Your task to perform on an android device: turn on bluetooth scan Image 0: 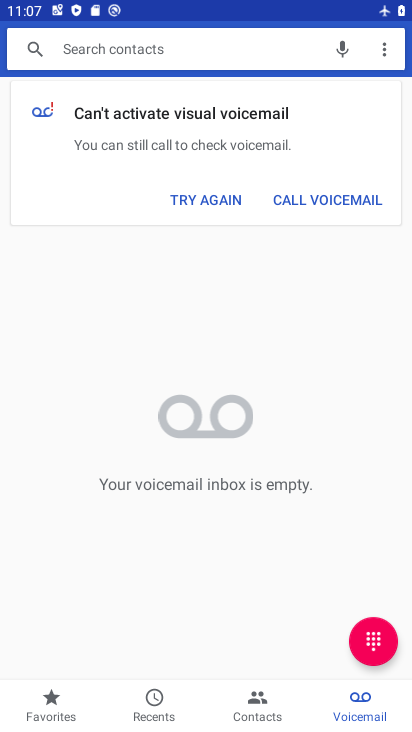
Step 0: press home button
Your task to perform on an android device: turn on bluetooth scan Image 1: 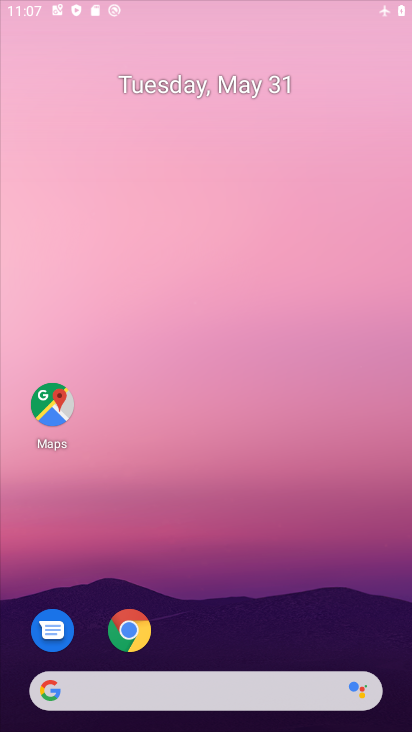
Step 1: drag from (177, 578) to (206, 200)
Your task to perform on an android device: turn on bluetooth scan Image 2: 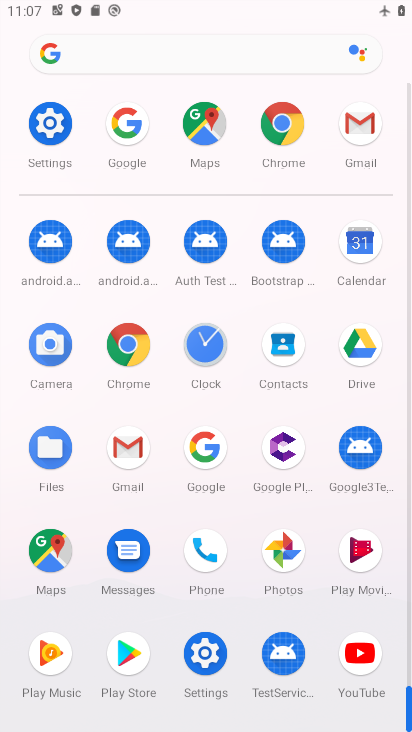
Step 2: click (46, 149)
Your task to perform on an android device: turn on bluetooth scan Image 3: 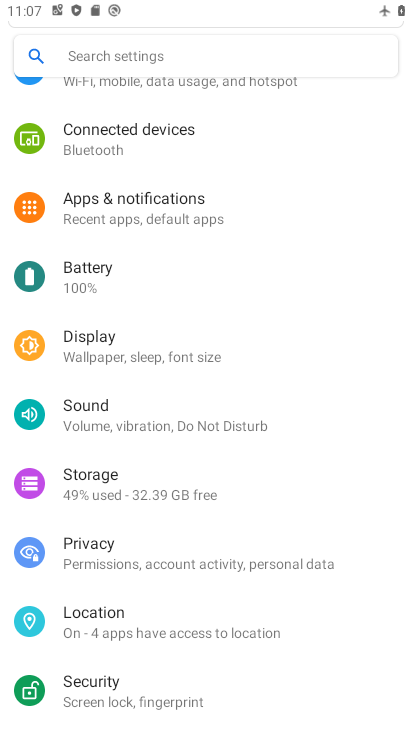
Step 3: drag from (213, 346) to (197, 614)
Your task to perform on an android device: turn on bluetooth scan Image 4: 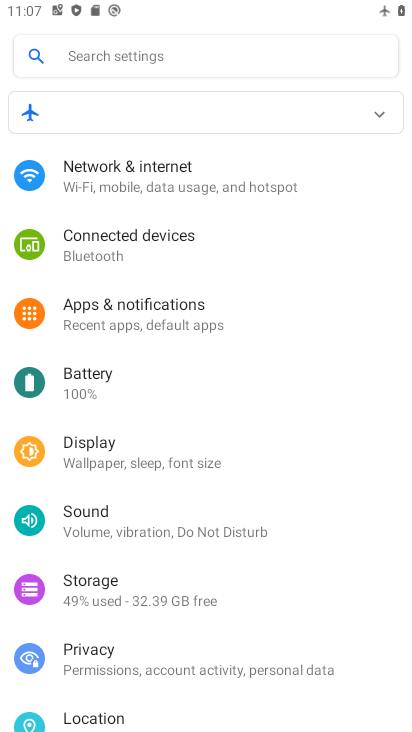
Step 4: click (185, 250)
Your task to perform on an android device: turn on bluetooth scan Image 5: 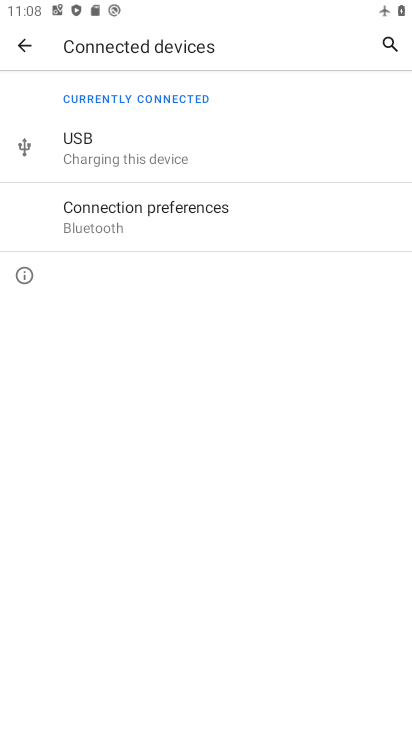
Step 5: click (225, 214)
Your task to perform on an android device: turn on bluetooth scan Image 6: 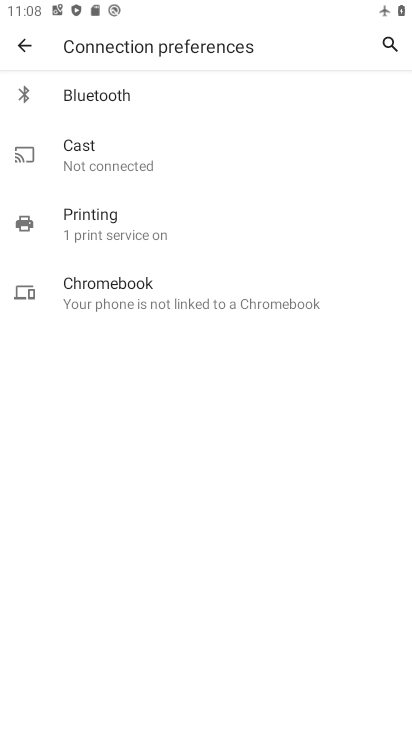
Step 6: click (154, 95)
Your task to perform on an android device: turn on bluetooth scan Image 7: 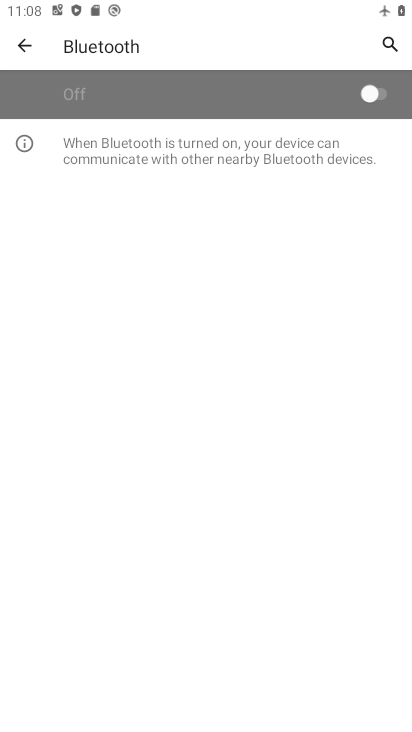
Step 7: click (380, 96)
Your task to perform on an android device: turn on bluetooth scan Image 8: 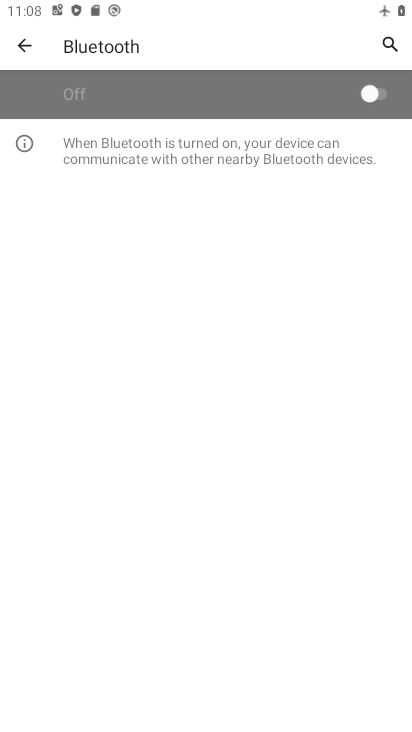
Step 8: task complete